Your task to perform on an android device: open a new tab in the chrome app Image 0: 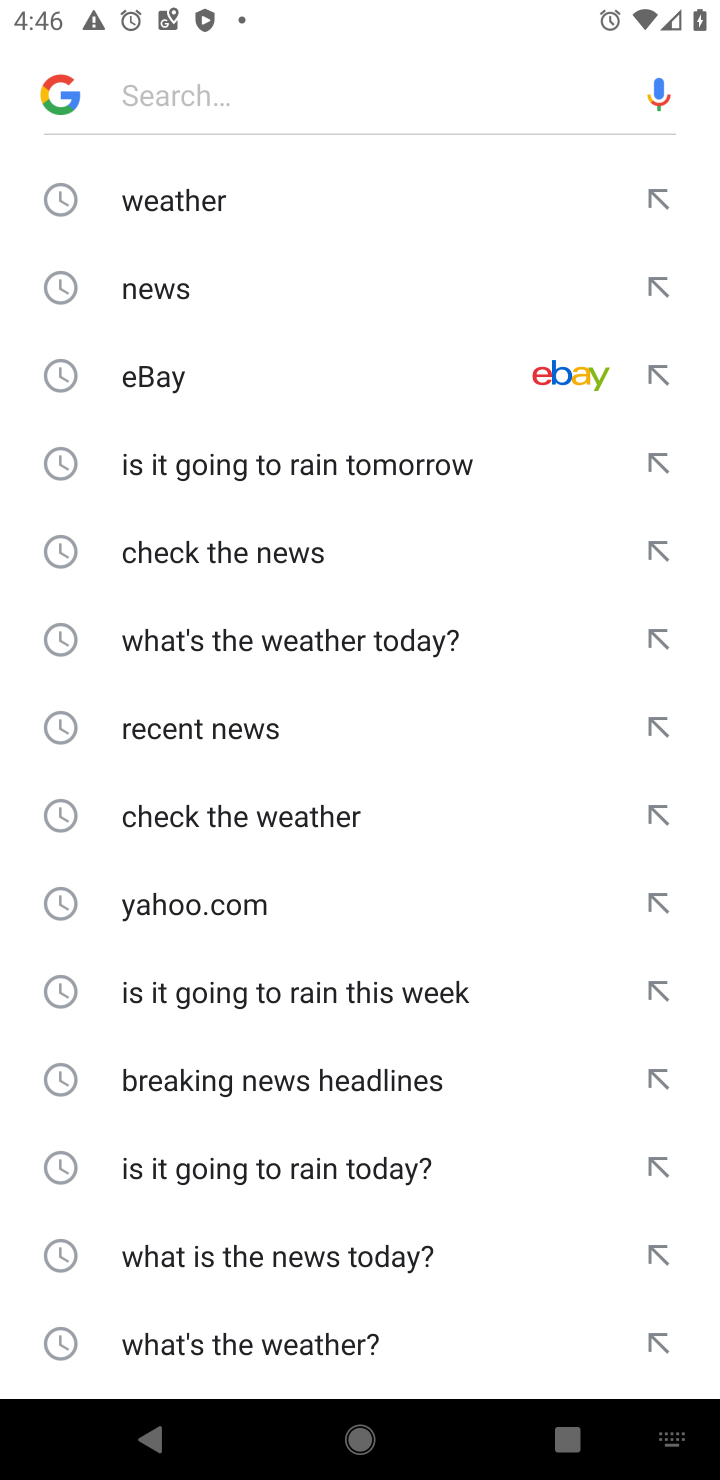
Step 0: press home button
Your task to perform on an android device: open a new tab in the chrome app Image 1: 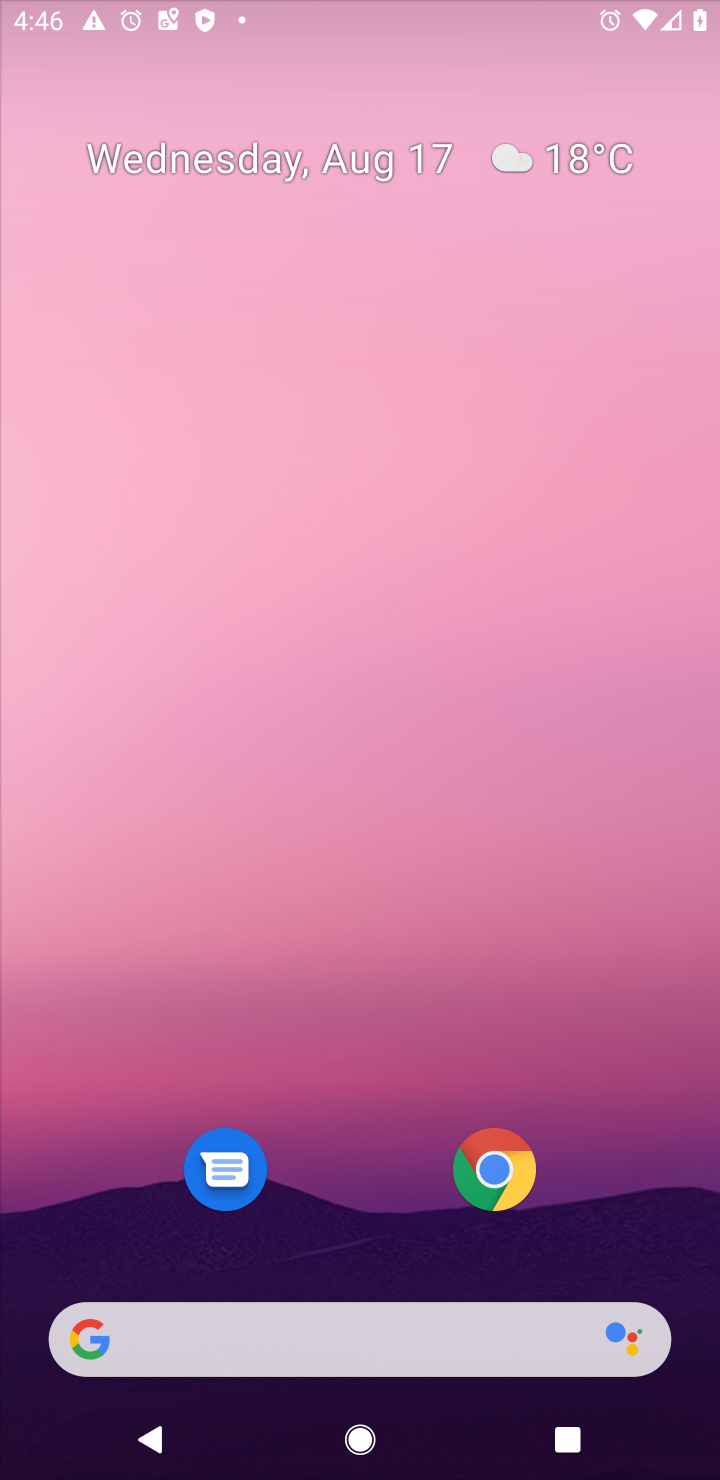
Step 1: drag from (401, 1235) to (374, 385)
Your task to perform on an android device: open a new tab in the chrome app Image 2: 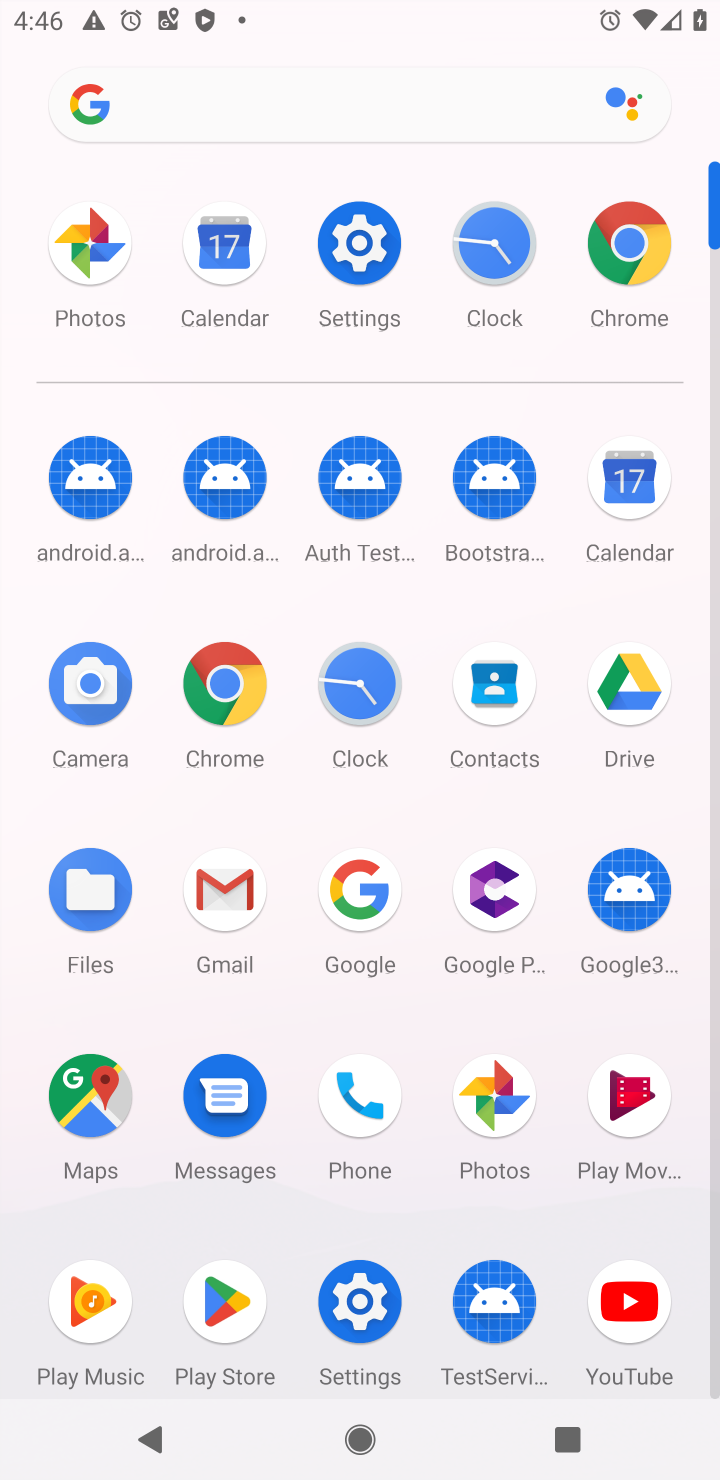
Step 2: click (222, 671)
Your task to perform on an android device: open a new tab in the chrome app Image 3: 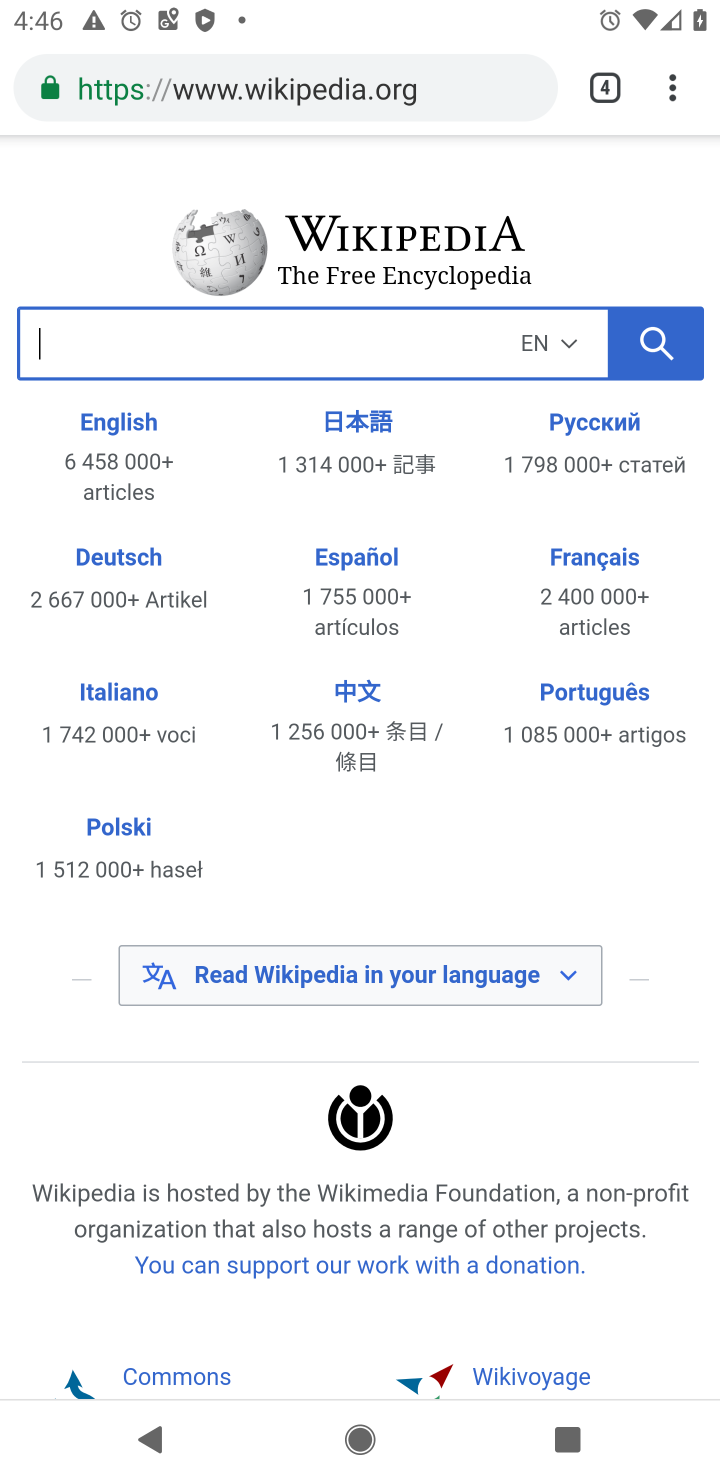
Step 3: click (240, 72)
Your task to perform on an android device: open a new tab in the chrome app Image 4: 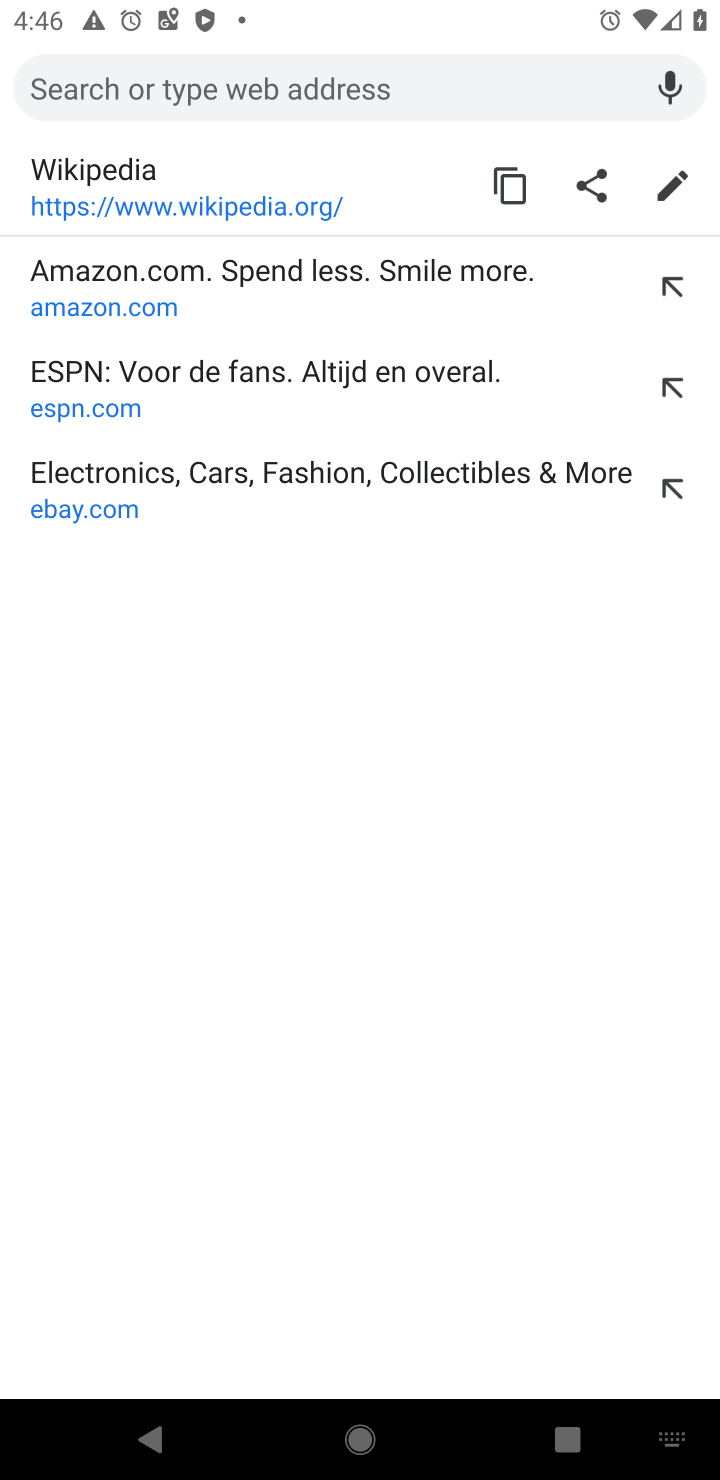
Step 4: task complete